Your task to perform on an android device: find photos in the google photos app Image 0: 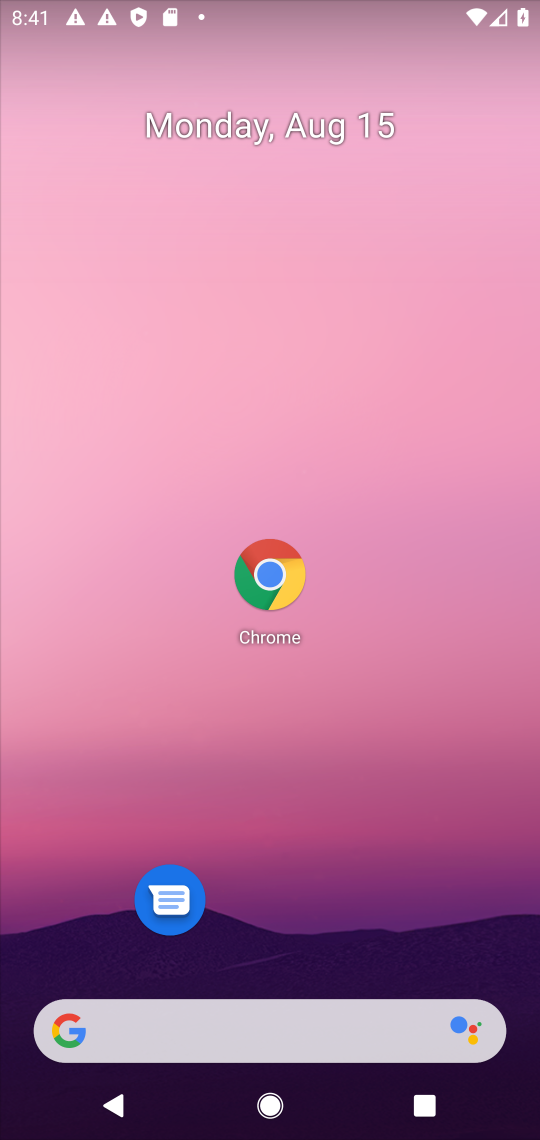
Step 0: drag from (428, 906) to (201, 156)
Your task to perform on an android device: find photos in the google photos app Image 1: 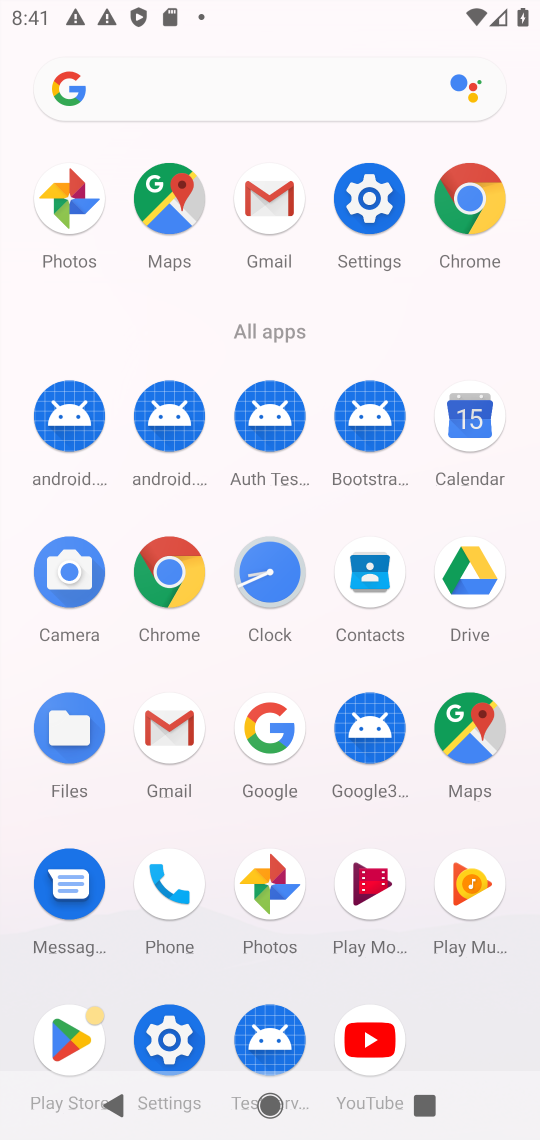
Step 1: click (255, 889)
Your task to perform on an android device: find photos in the google photos app Image 2: 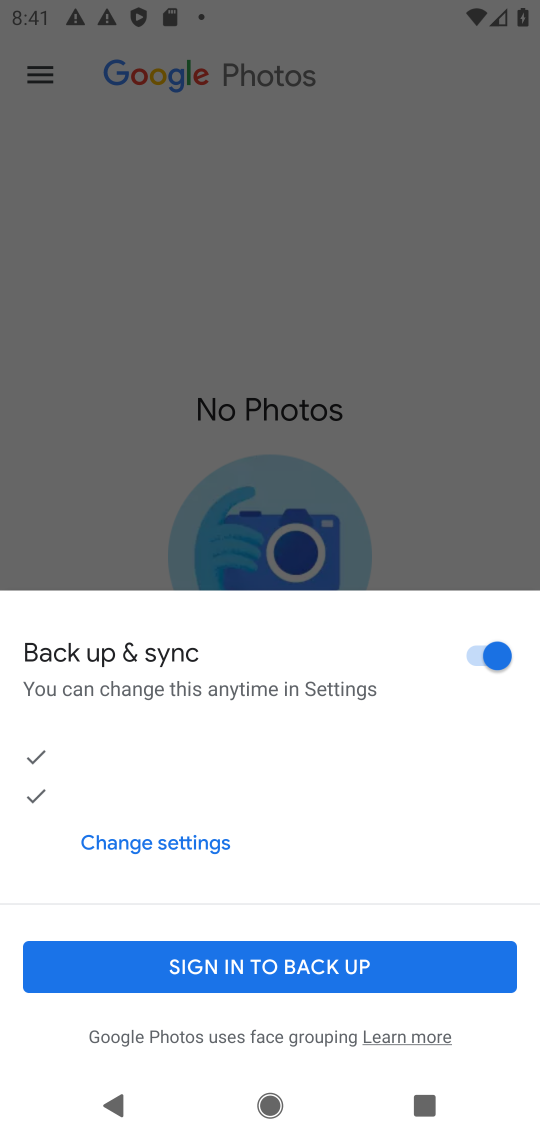
Step 2: click (384, 366)
Your task to perform on an android device: find photos in the google photos app Image 3: 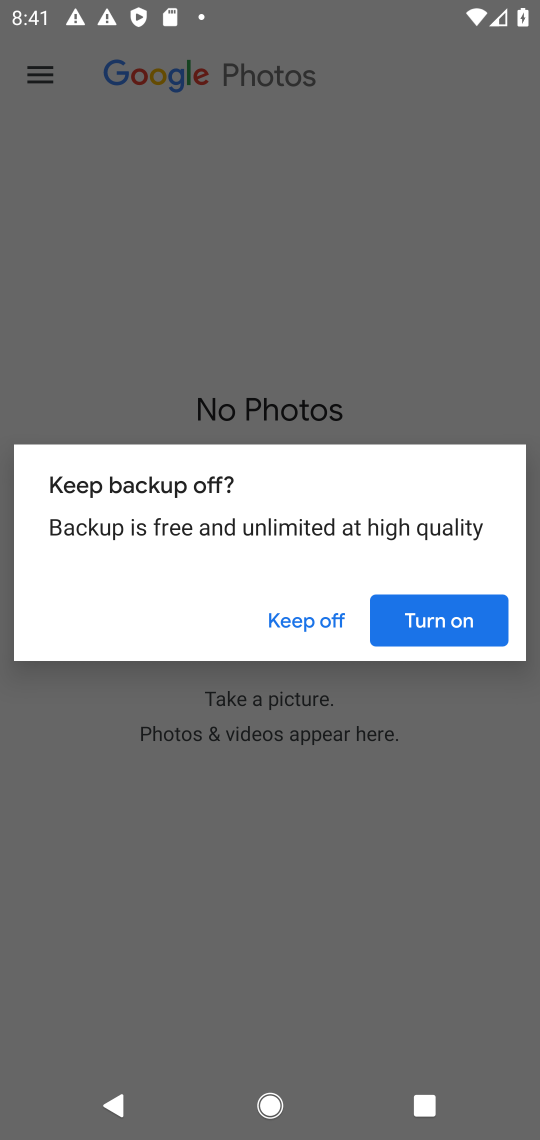
Step 3: click (433, 776)
Your task to perform on an android device: find photos in the google photos app Image 4: 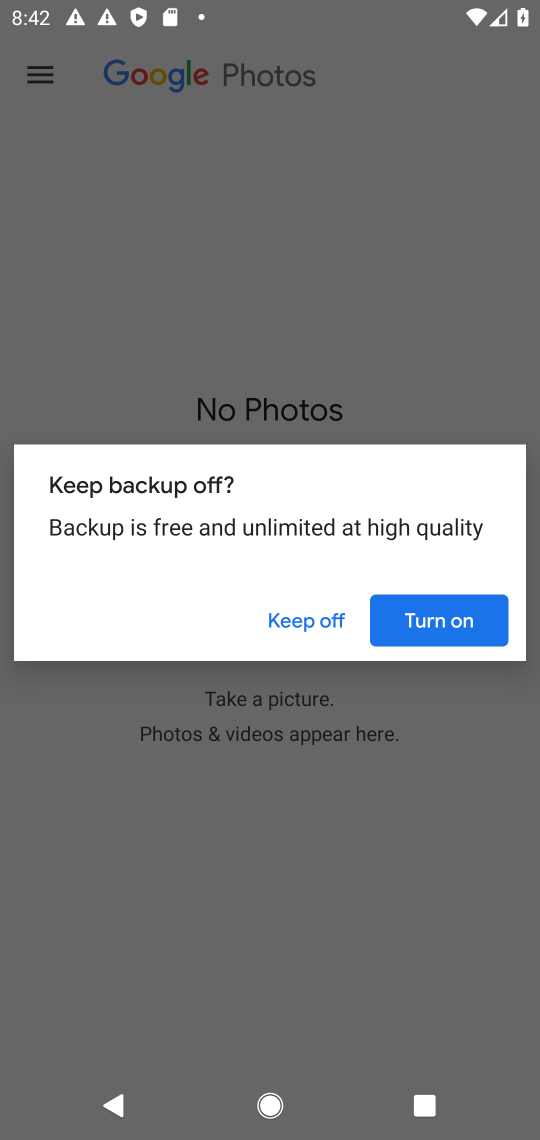
Step 4: click (416, 627)
Your task to perform on an android device: find photos in the google photos app Image 5: 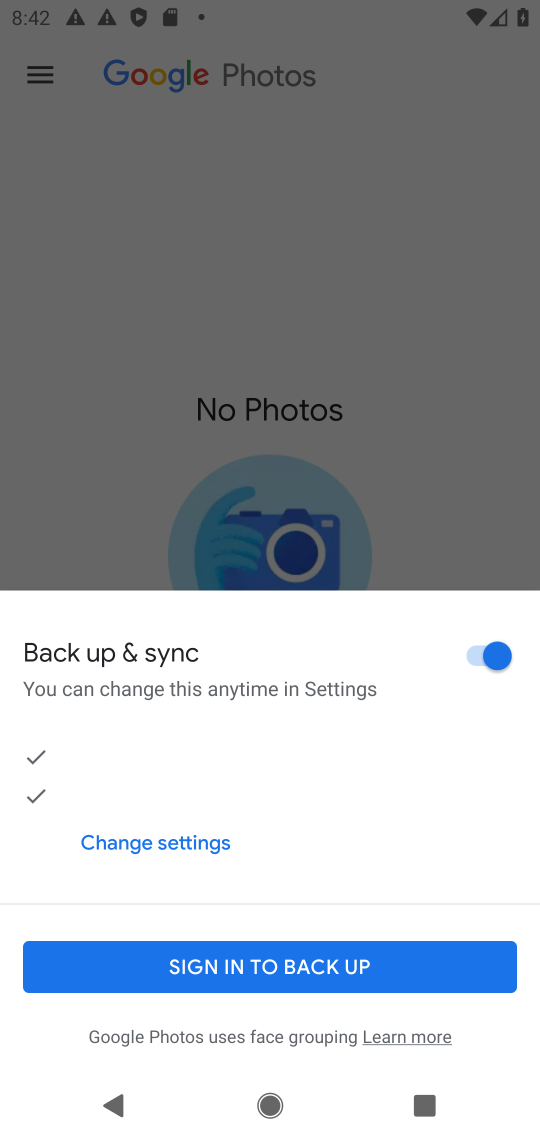
Step 5: click (357, 512)
Your task to perform on an android device: find photos in the google photos app Image 6: 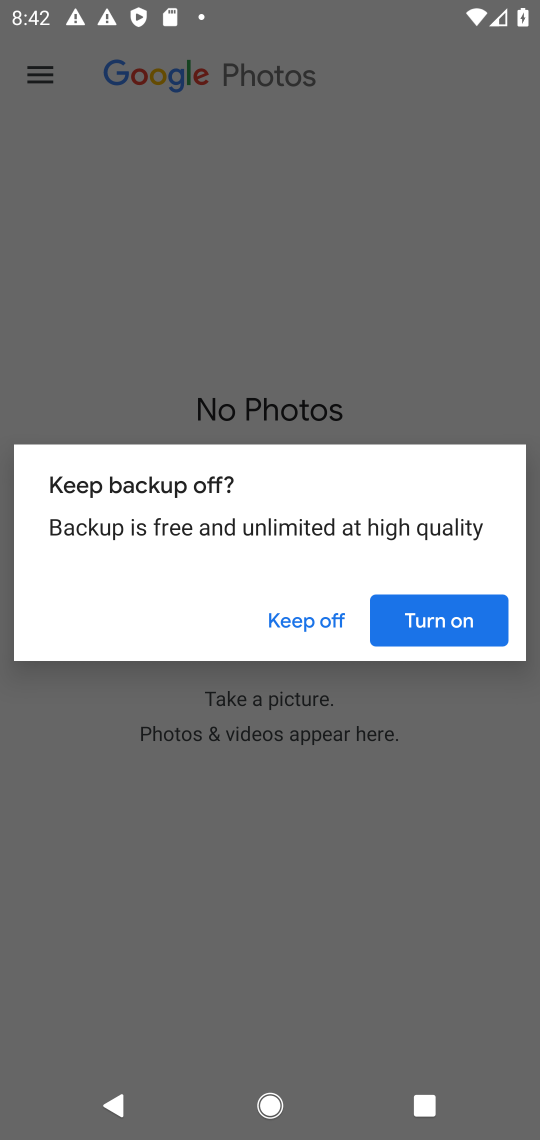
Step 6: click (334, 626)
Your task to perform on an android device: find photos in the google photos app Image 7: 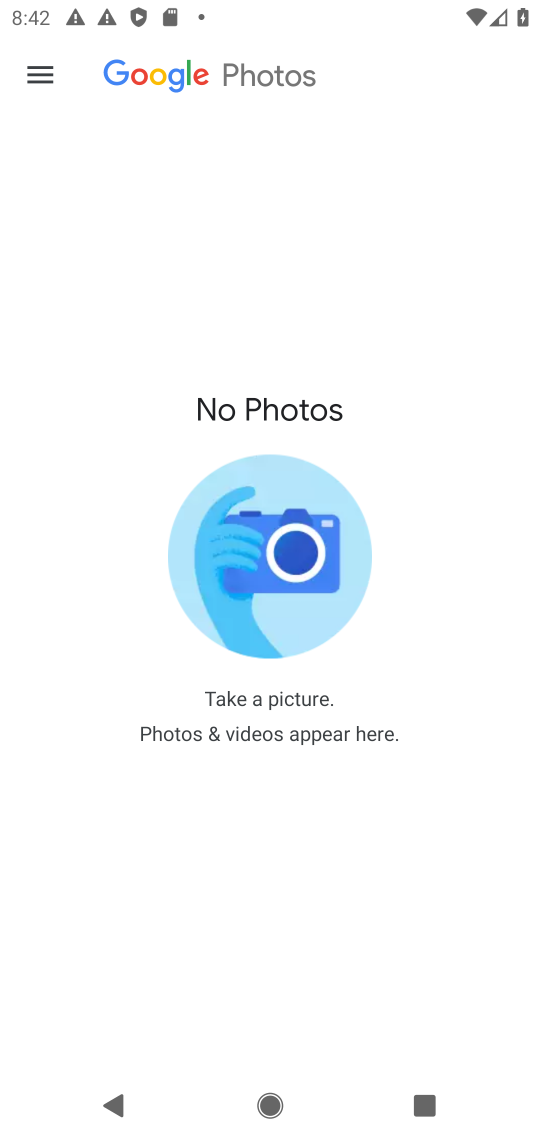
Step 7: task complete